Your task to perform on an android device: snooze an email in the gmail app Image 0: 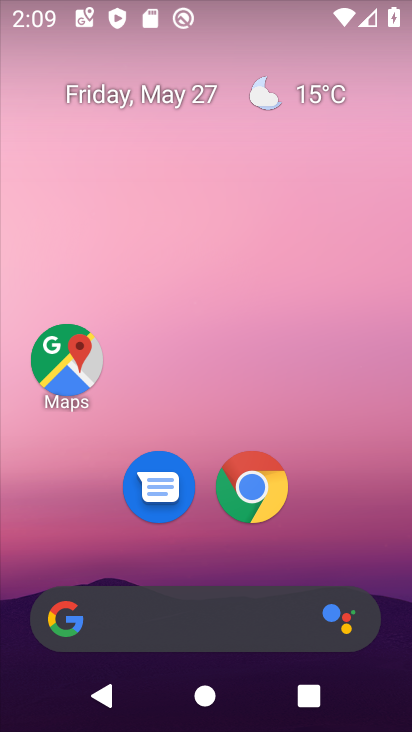
Step 0: drag from (255, 543) to (254, 117)
Your task to perform on an android device: snooze an email in the gmail app Image 1: 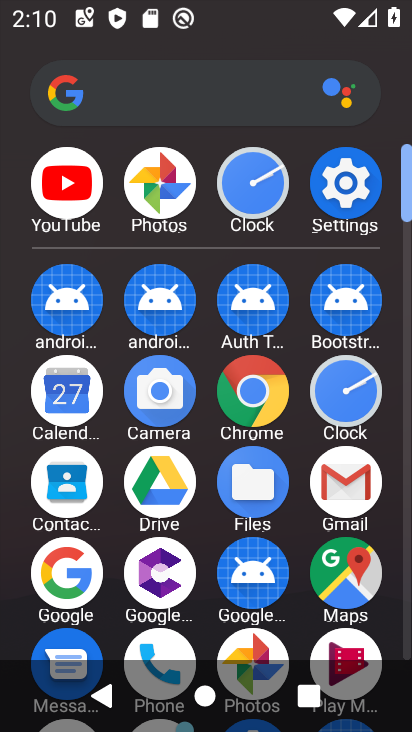
Step 1: click (353, 490)
Your task to perform on an android device: snooze an email in the gmail app Image 2: 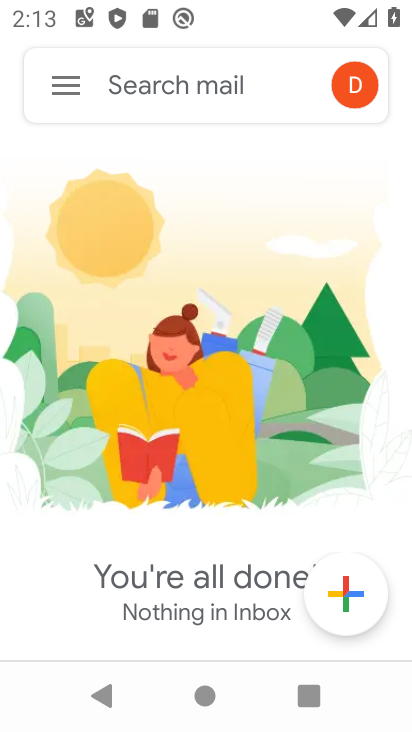
Step 2: task complete